Your task to perform on an android device: open device folders in google photos Image 0: 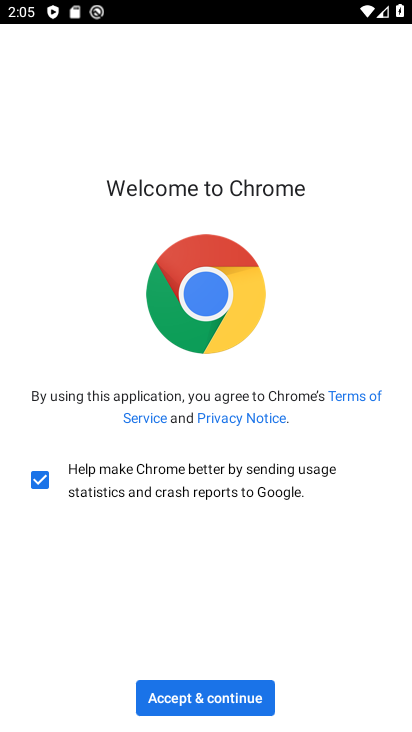
Step 0: press home button
Your task to perform on an android device: open device folders in google photos Image 1: 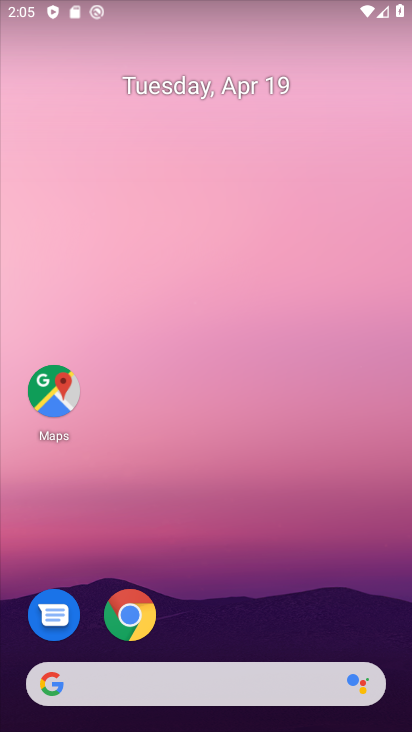
Step 1: drag from (335, 553) to (313, 196)
Your task to perform on an android device: open device folders in google photos Image 2: 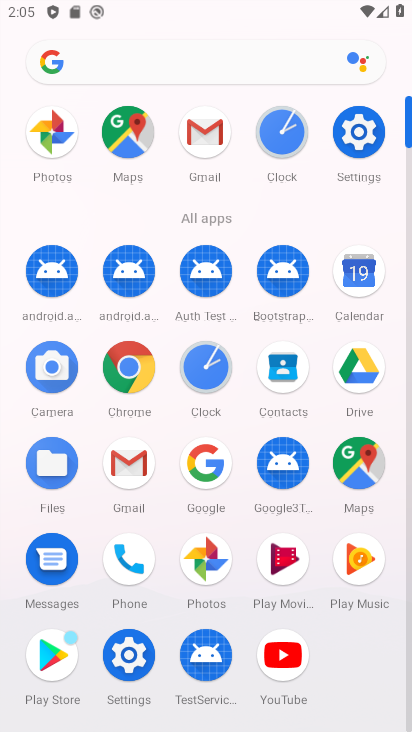
Step 2: click (207, 552)
Your task to perform on an android device: open device folders in google photos Image 3: 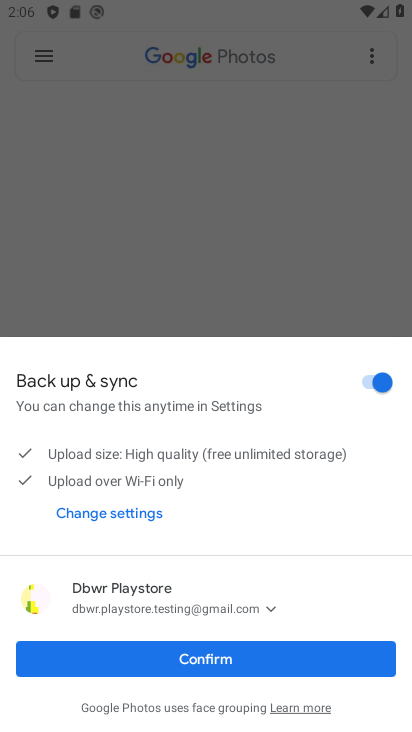
Step 3: click (273, 647)
Your task to perform on an android device: open device folders in google photos Image 4: 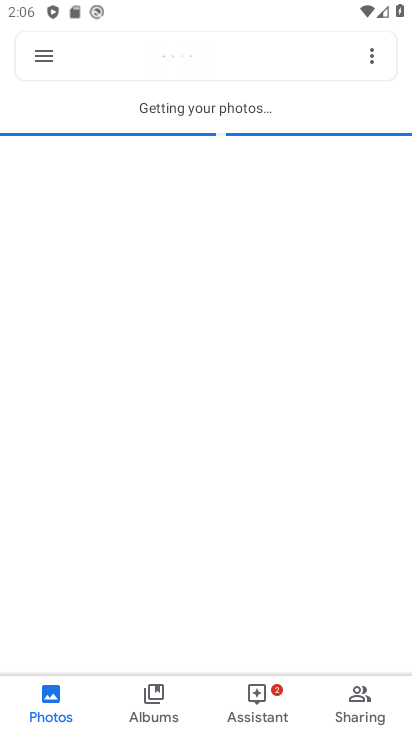
Step 4: click (163, 693)
Your task to perform on an android device: open device folders in google photos Image 5: 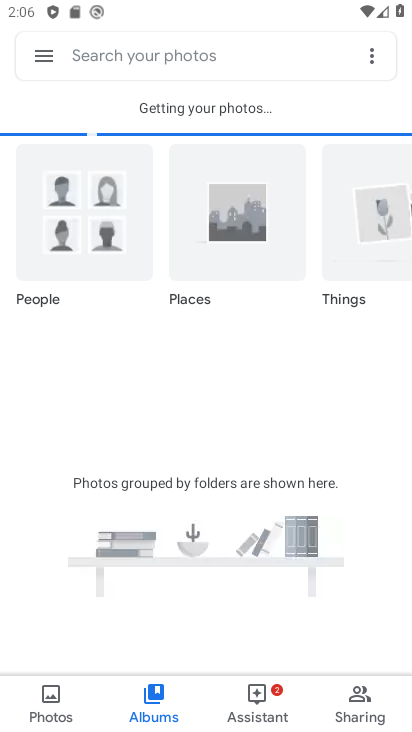
Step 5: click (161, 694)
Your task to perform on an android device: open device folders in google photos Image 6: 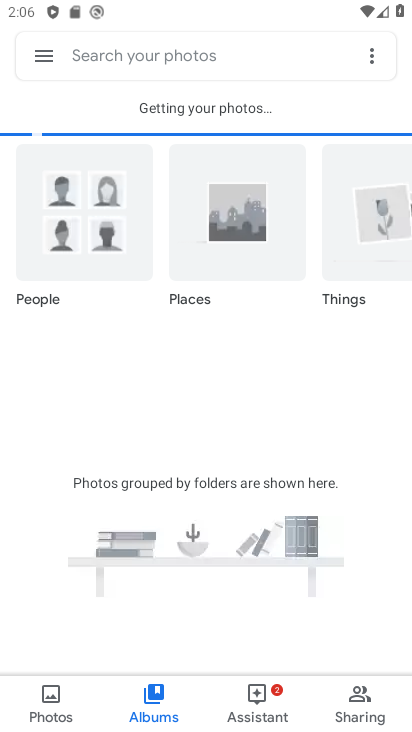
Step 6: click (44, 695)
Your task to perform on an android device: open device folders in google photos Image 7: 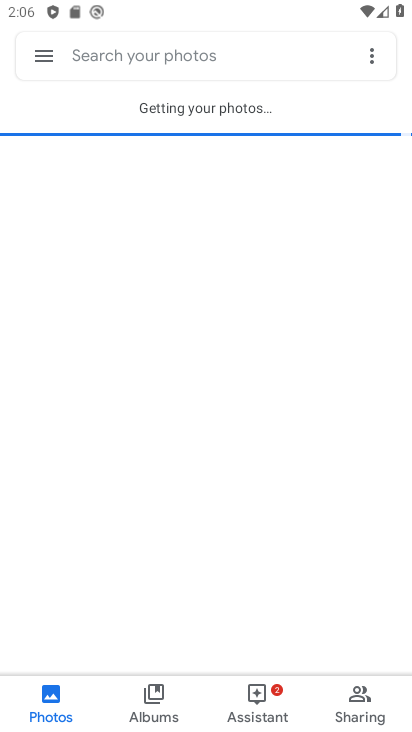
Step 7: click (134, 708)
Your task to perform on an android device: open device folders in google photos Image 8: 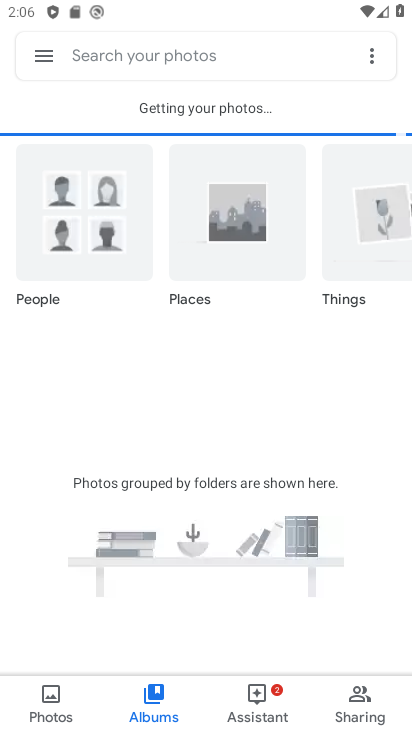
Step 8: click (148, 710)
Your task to perform on an android device: open device folders in google photos Image 9: 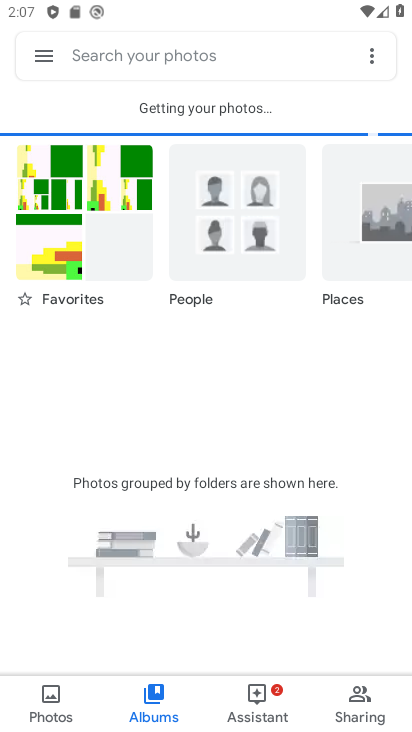
Step 9: click (72, 163)
Your task to perform on an android device: open device folders in google photos Image 10: 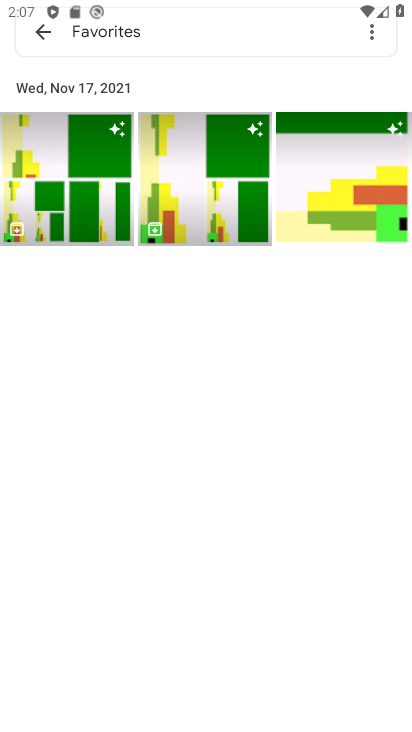
Step 10: task complete